Your task to perform on an android device: uninstall "Move to iOS" Image 0: 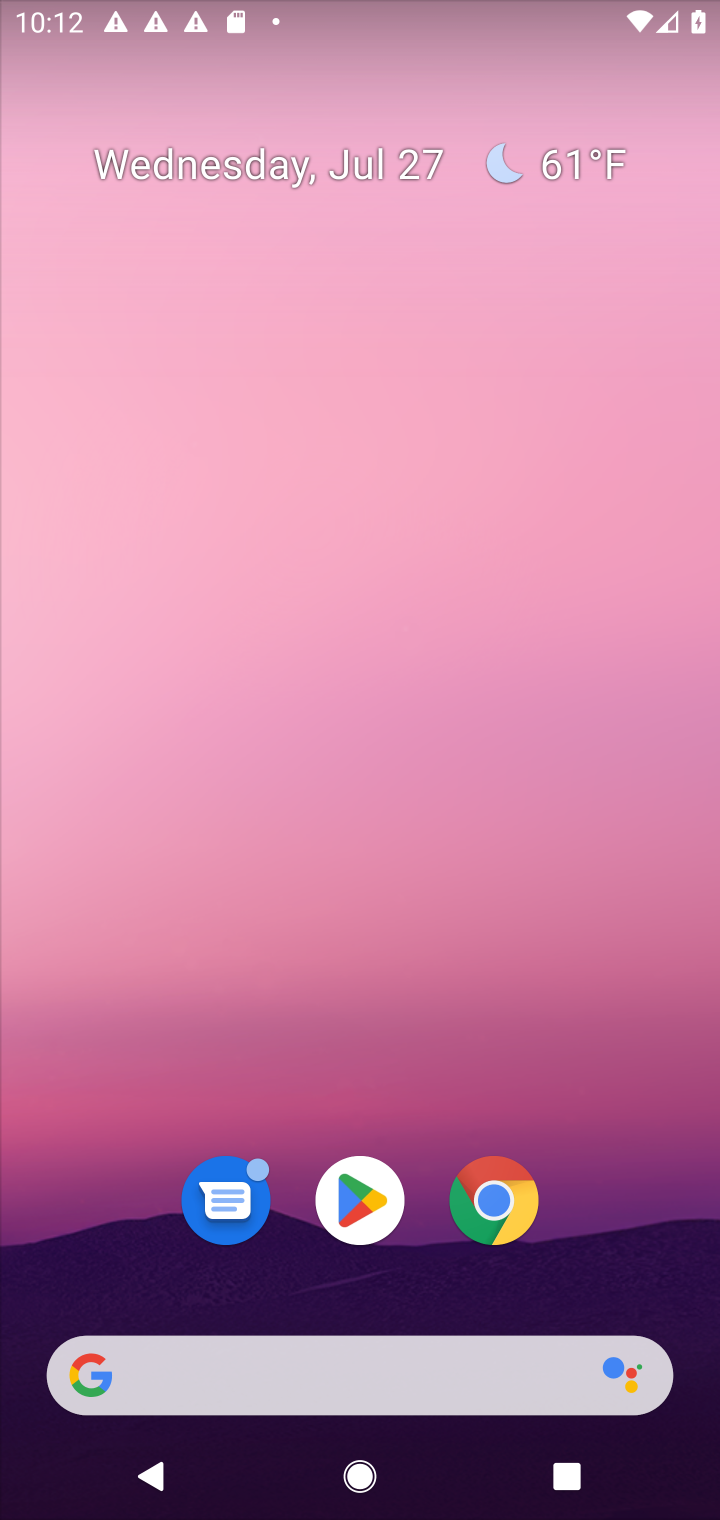
Step 0: click (360, 1187)
Your task to perform on an android device: uninstall "Move to iOS" Image 1: 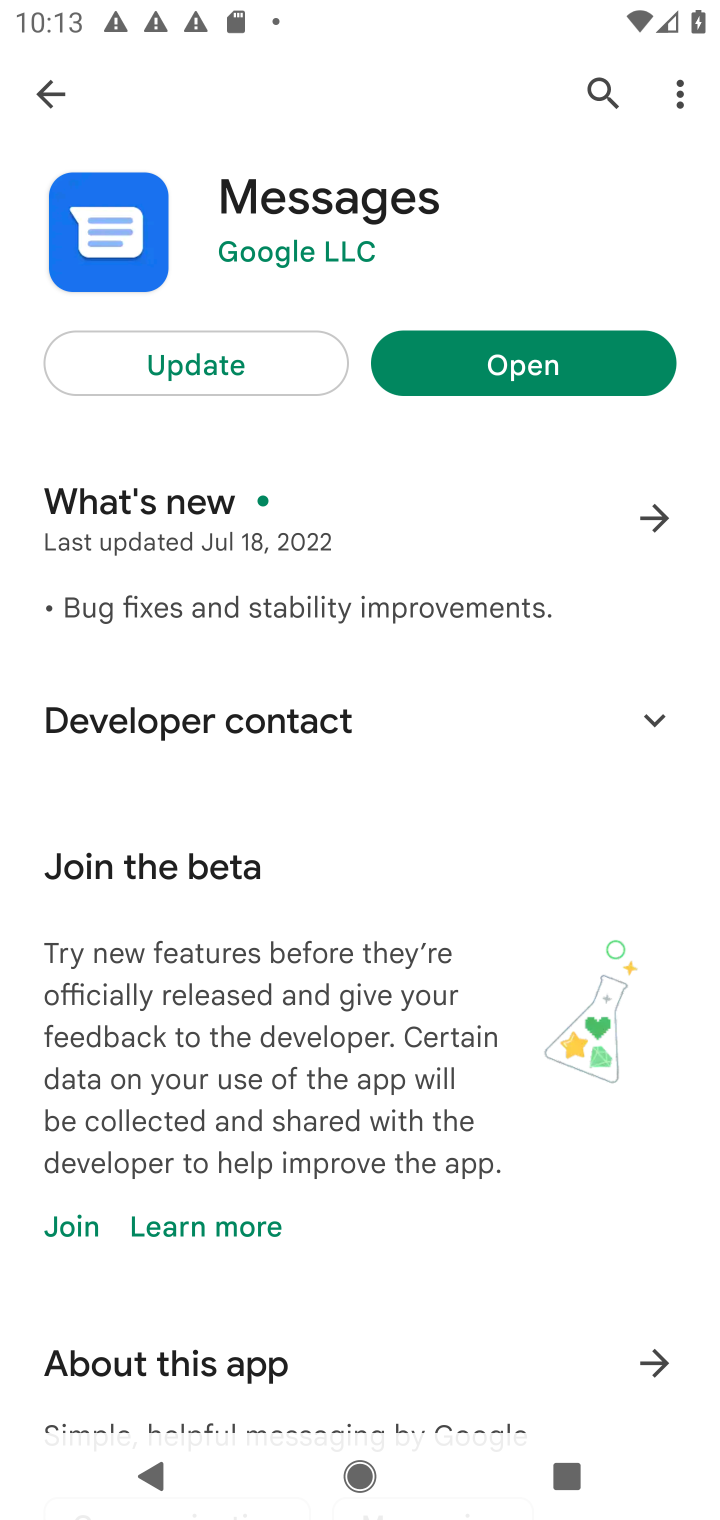
Step 1: click (45, 77)
Your task to perform on an android device: uninstall "Move to iOS" Image 2: 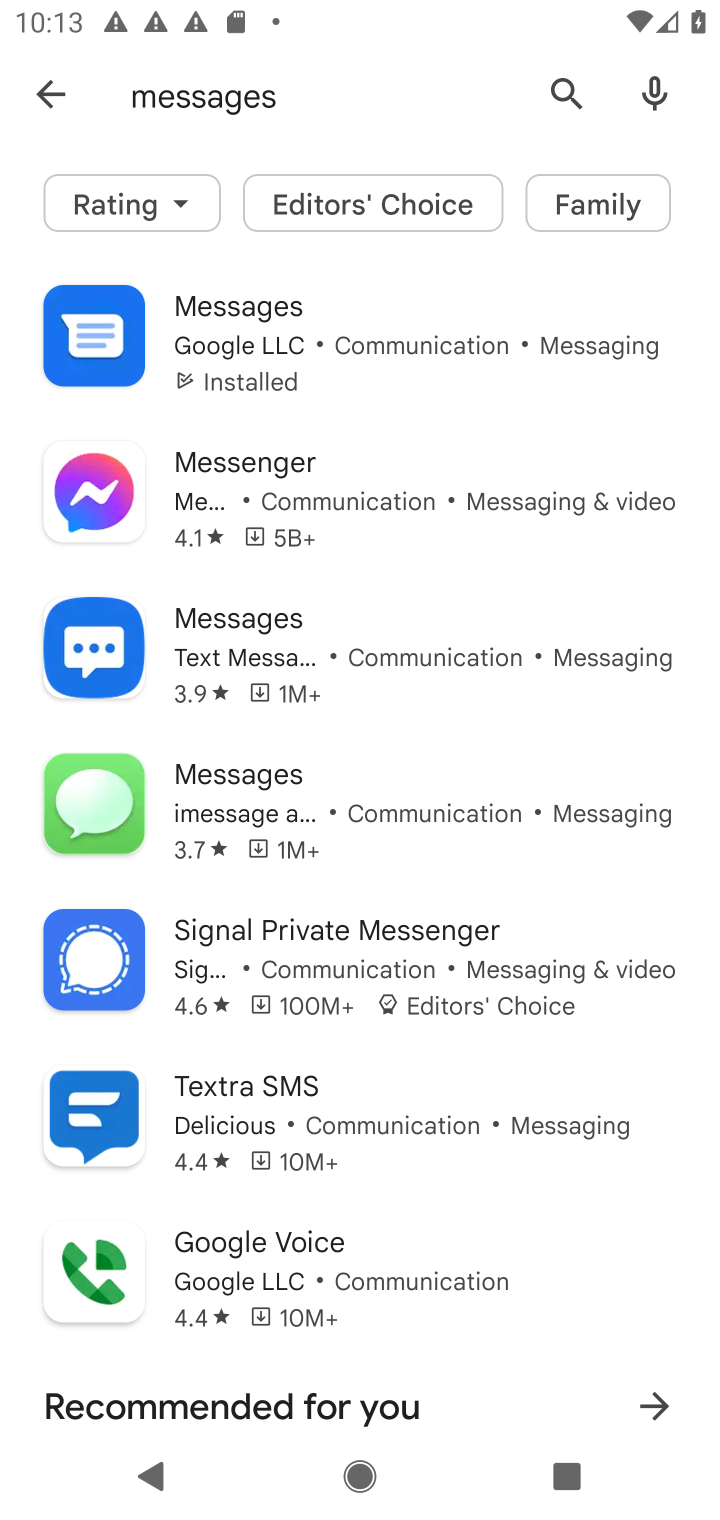
Step 2: click (549, 90)
Your task to perform on an android device: uninstall "Move to iOS" Image 3: 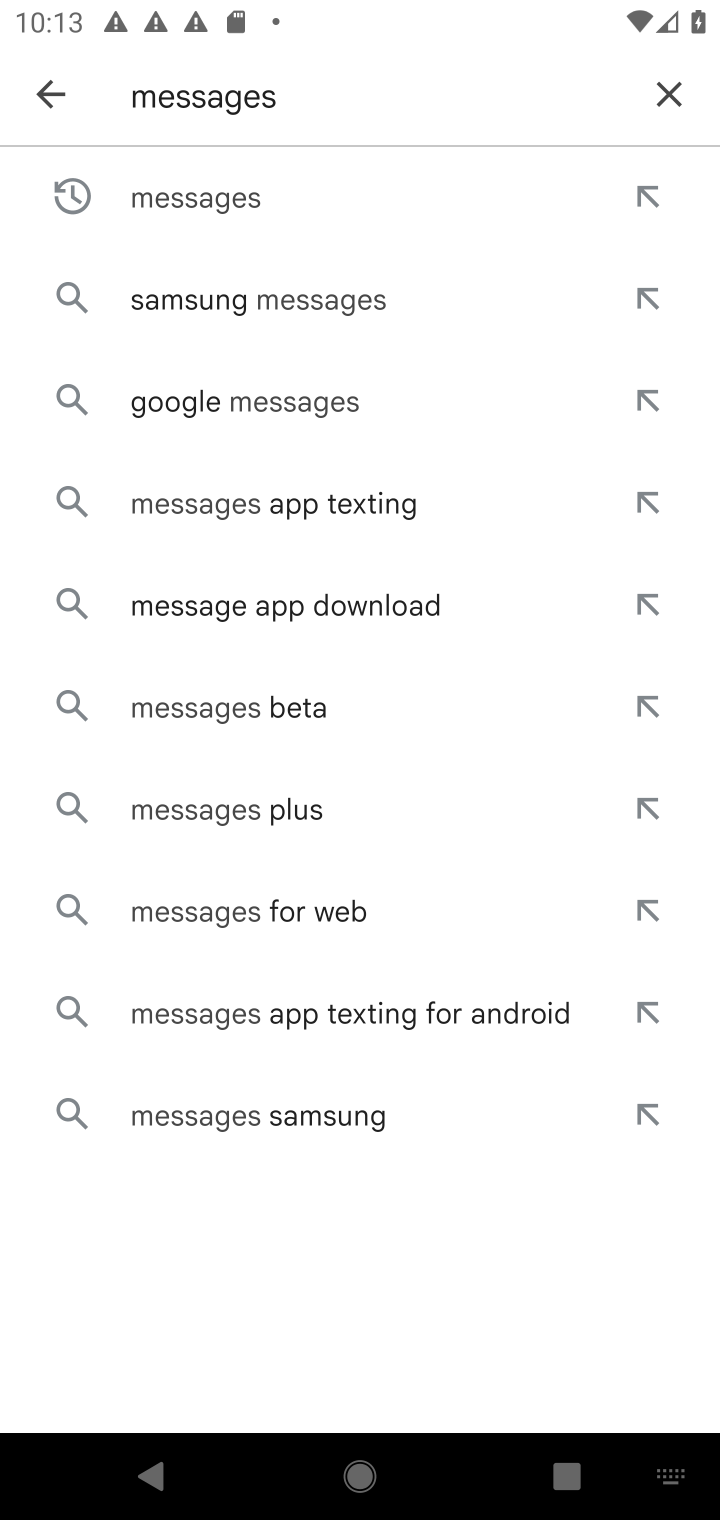
Step 3: click (668, 81)
Your task to perform on an android device: uninstall "Move to iOS" Image 4: 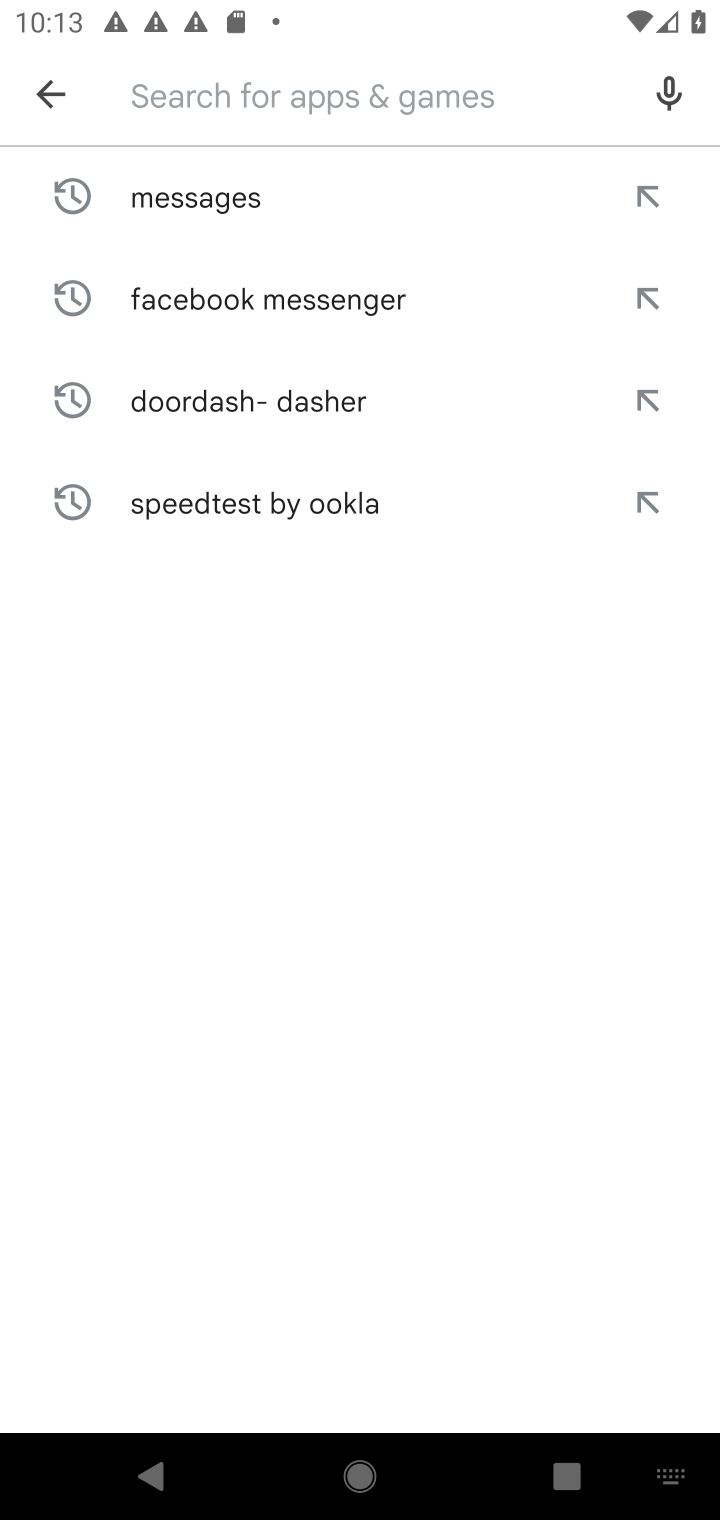
Step 4: type "Move to iOS"
Your task to perform on an android device: uninstall "Move to iOS" Image 5: 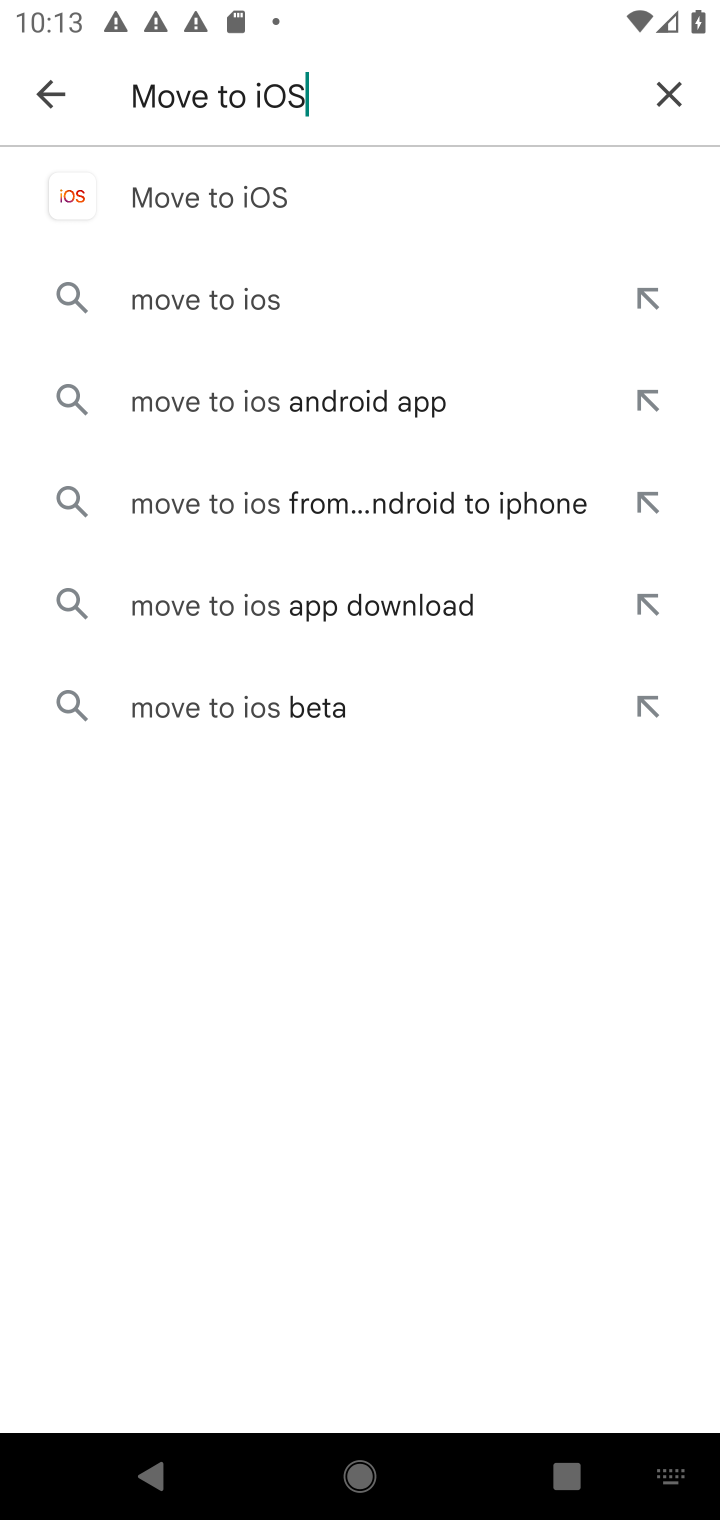
Step 5: click (220, 185)
Your task to perform on an android device: uninstall "Move to iOS" Image 6: 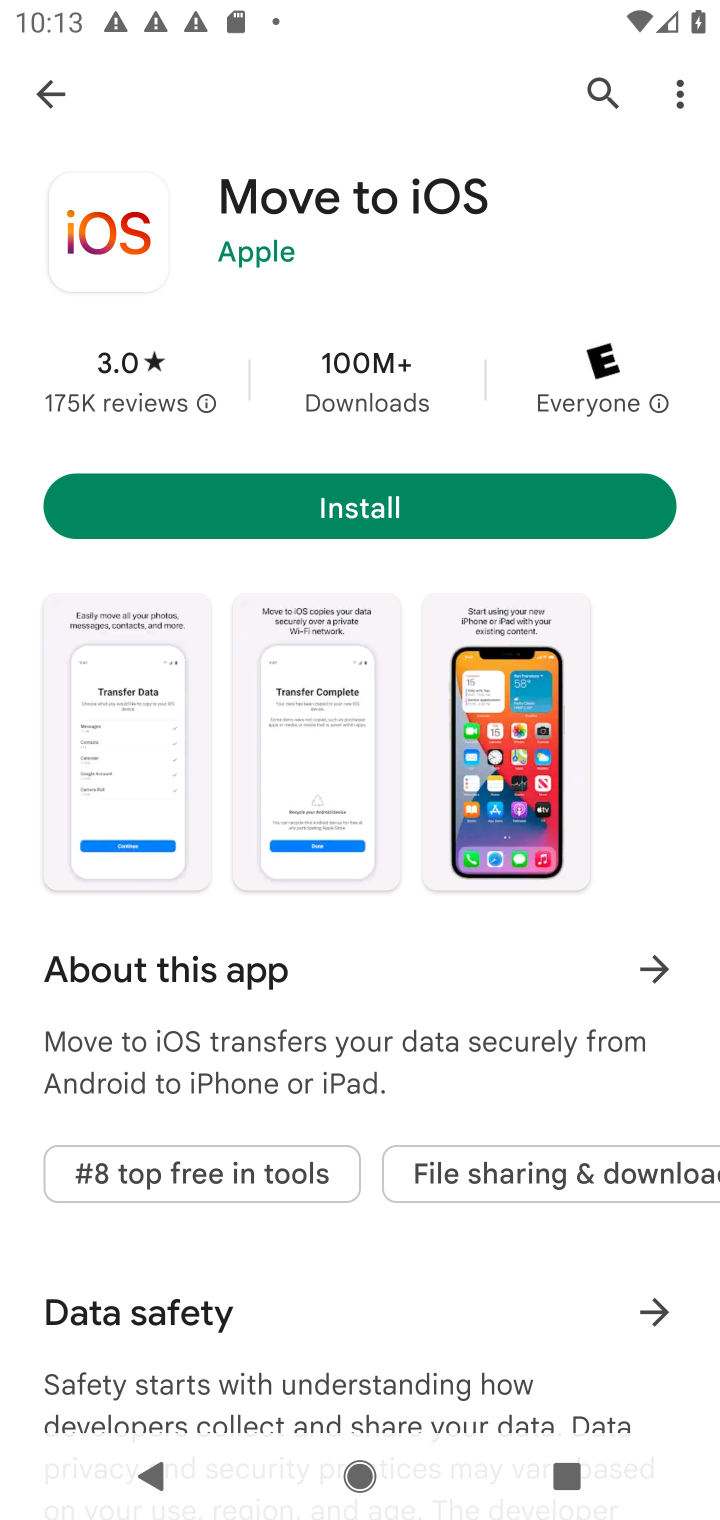
Step 6: task complete